Your task to perform on an android device: What's the weather? Image 0: 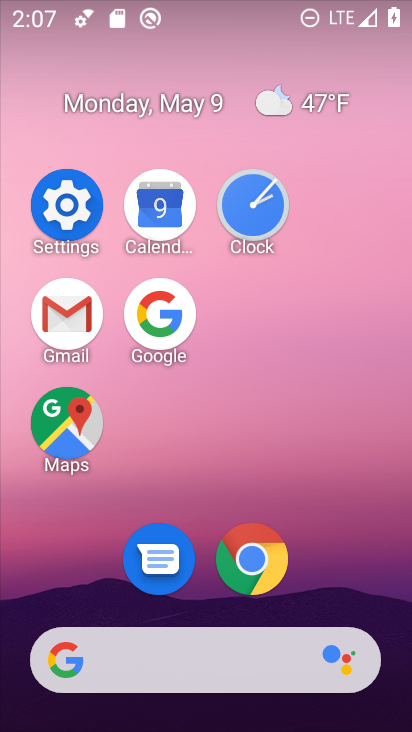
Step 0: click (159, 307)
Your task to perform on an android device: What's the weather? Image 1: 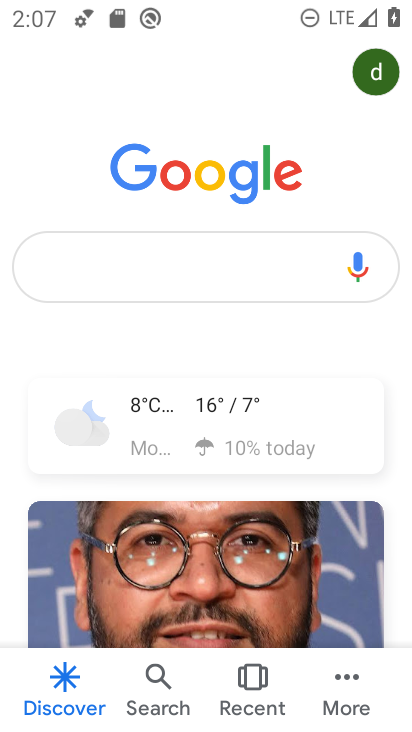
Step 1: click (170, 389)
Your task to perform on an android device: What's the weather? Image 2: 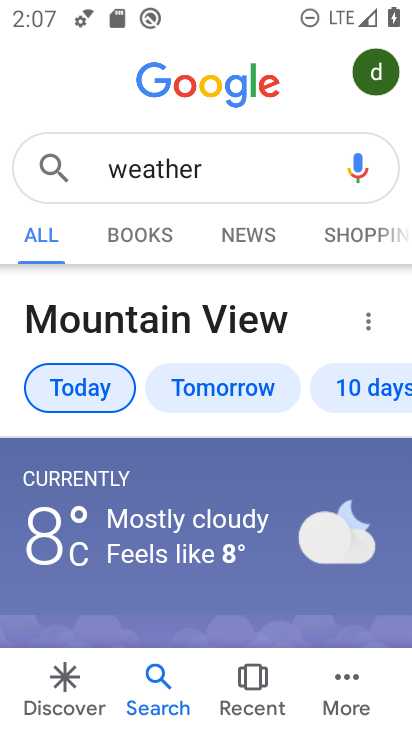
Step 2: task complete